Your task to perform on an android device: Go to calendar. Show me events next week Image 0: 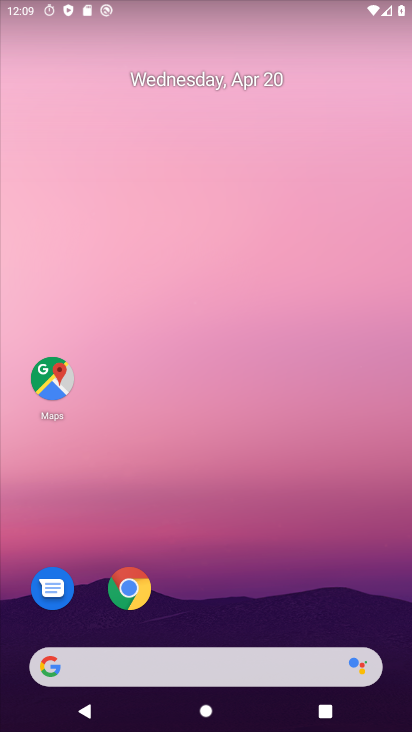
Step 0: drag from (208, 634) to (162, 72)
Your task to perform on an android device: Go to calendar. Show me events next week Image 1: 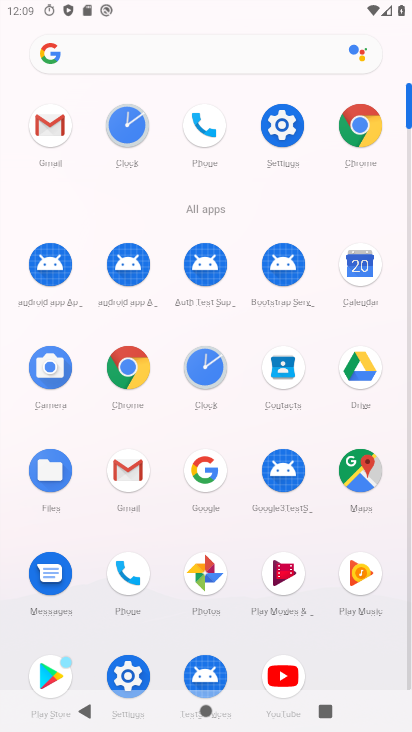
Step 1: click (358, 263)
Your task to perform on an android device: Go to calendar. Show me events next week Image 2: 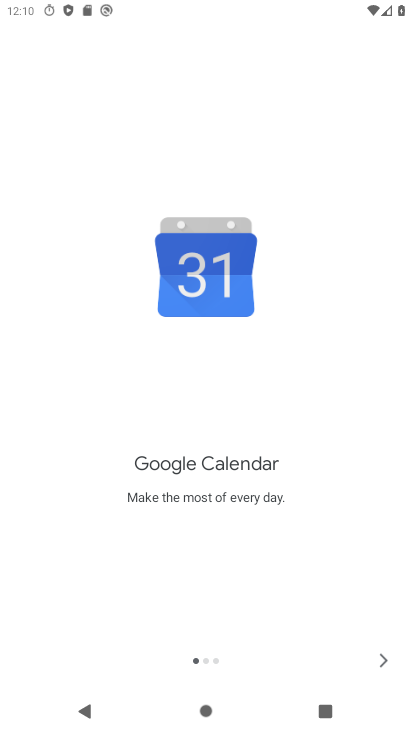
Step 2: click (372, 657)
Your task to perform on an android device: Go to calendar. Show me events next week Image 3: 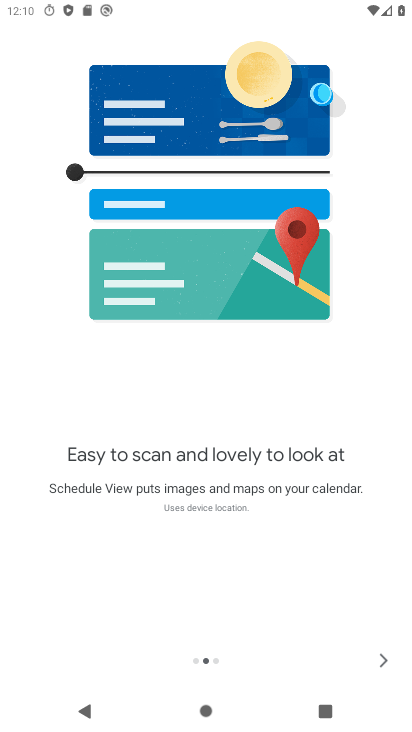
Step 3: click (379, 660)
Your task to perform on an android device: Go to calendar. Show me events next week Image 4: 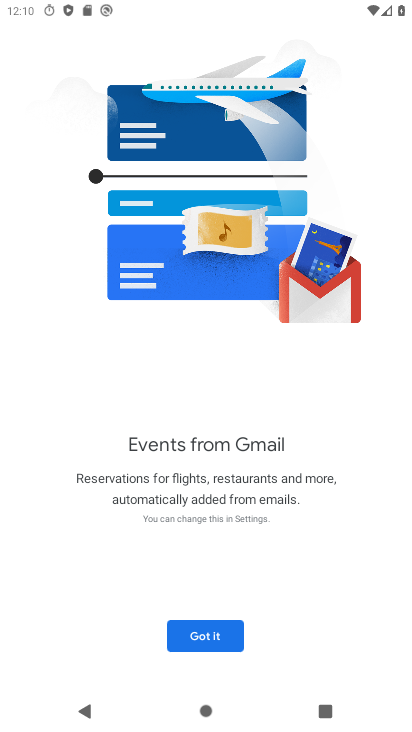
Step 4: click (205, 628)
Your task to perform on an android device: Go to calendar. Show me events next week Image 5: 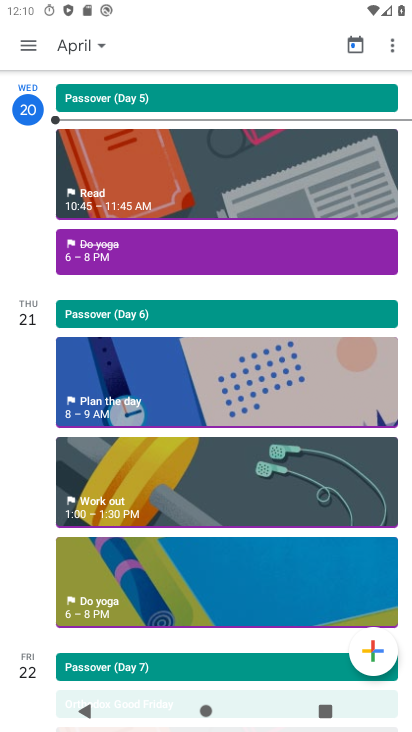
Step 5: click (32, 48)
Your task to perform on an android device: Go to calendar. Show me events next week Image 6: 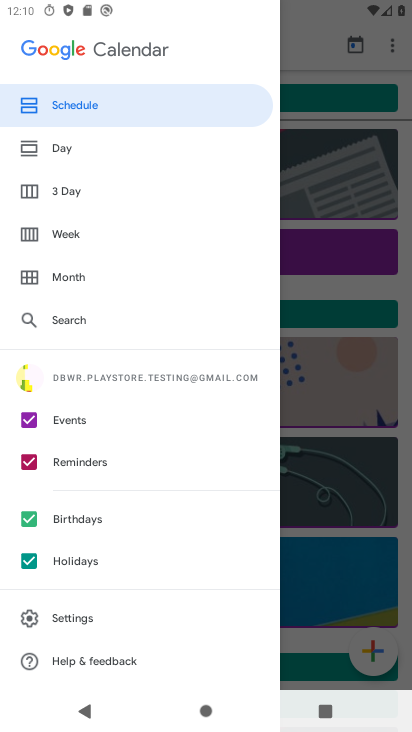
Step 6: click (51, 236)
Your task to perform on an android device: Go to calendar. Show me events next week Image 7: 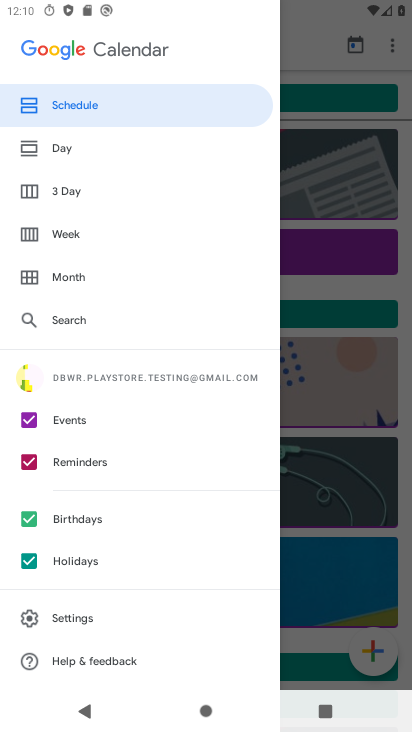
Step 7: click (51, 229)
Your task to perform on an android device: Go to calendar. Show me events next week Image 8: 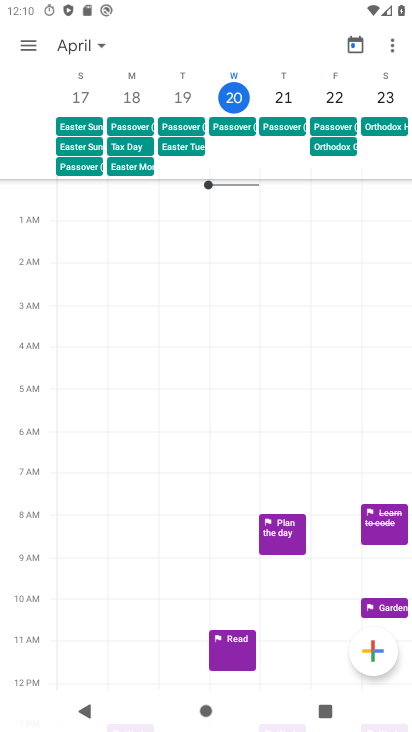
Step 8: task complete